Your task to perform on an android device: Show me recent news Image 0: 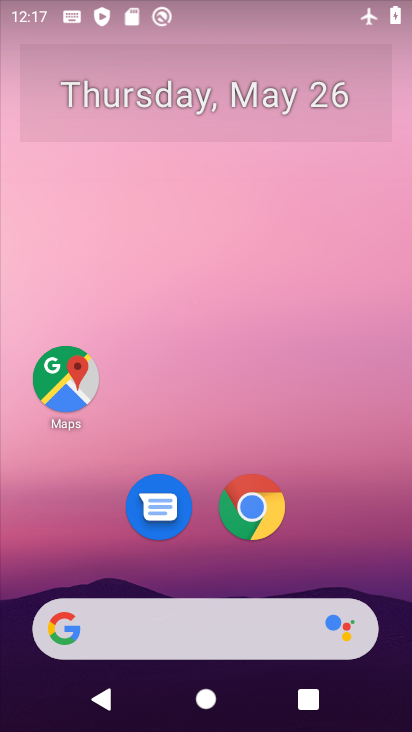
Step 0: drag from (241, 556) to (241, 187)
Your task to perform on an android device: Show me recent news Image 1: 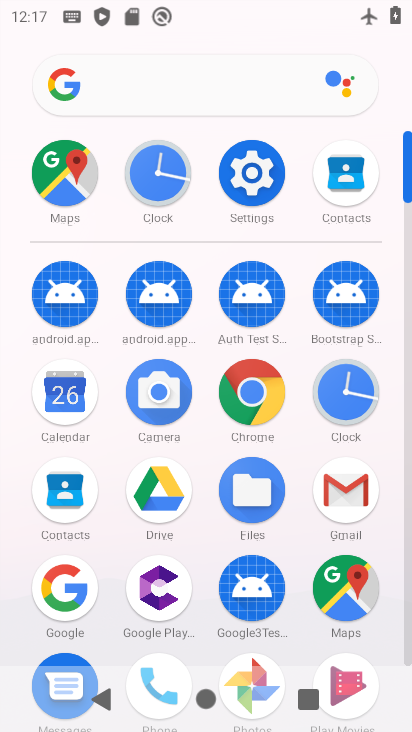
Step 1: click (65, 575)
Your task to perform on an android device: Show me recent news Image 2: 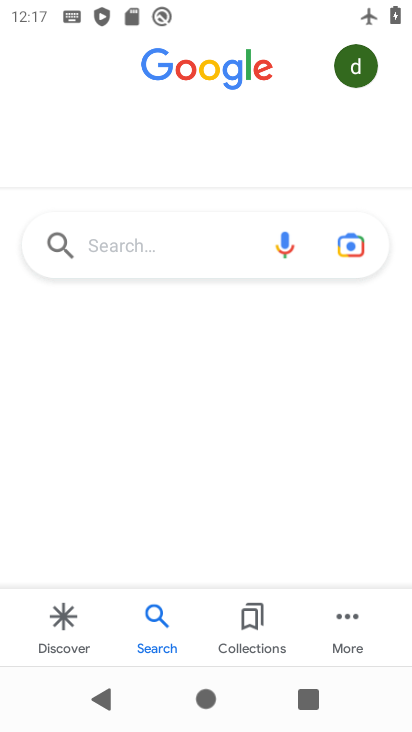
Step 2: click (193, 250)
Your task to perform on an android device: Show me recent news Image 3: 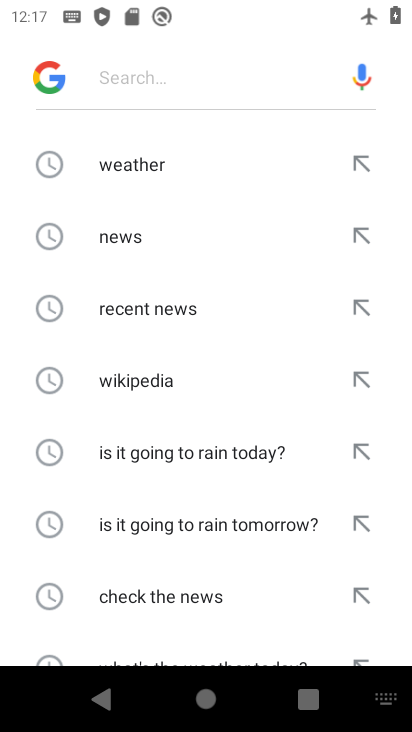
Step 3: click (125, 243)
Your task to perform on an android device: Show me recent news Image 4: 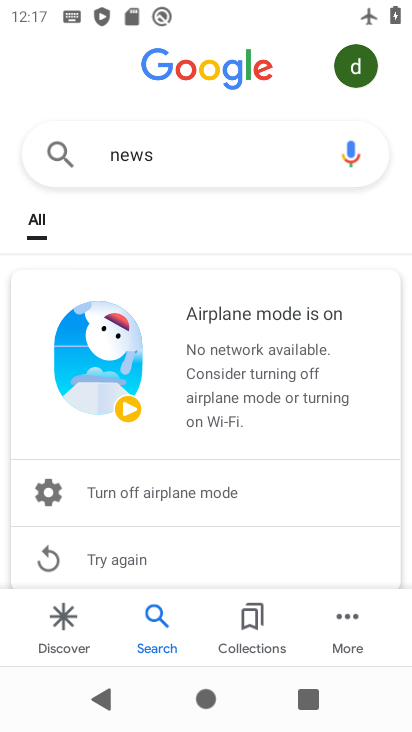
Step 4: task complete